Your task to perform on an android device: toggle location history Image 0: 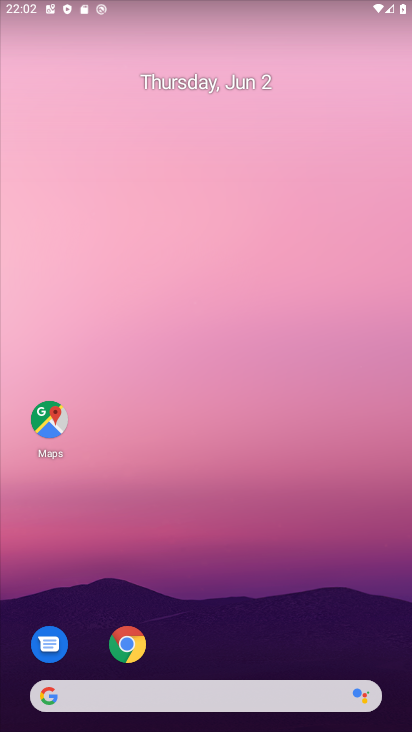
Step 0: drag from (247, 639) to (192, 150)
Your task to perform on an android device: toggle location history Image 1: 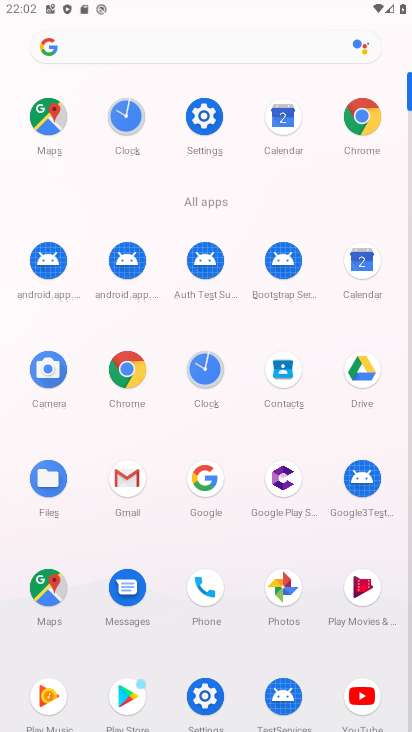
Step 1: click (208, 156)
Your task to perform on an android device: toggle location history Image 2: 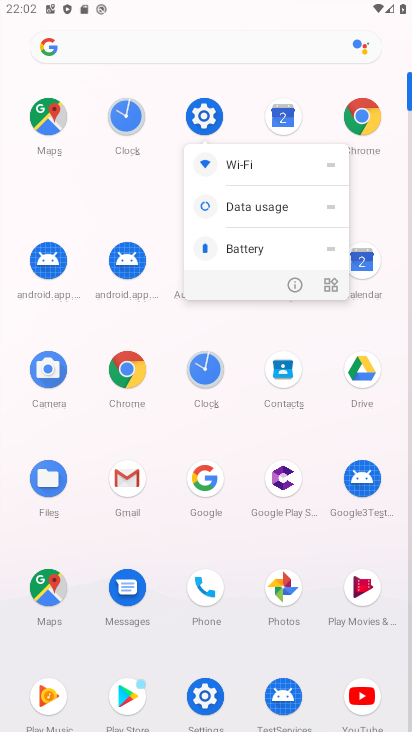
Step 2: click (203, 137)
Your task to perform on an android device: toggle location history Image 3: 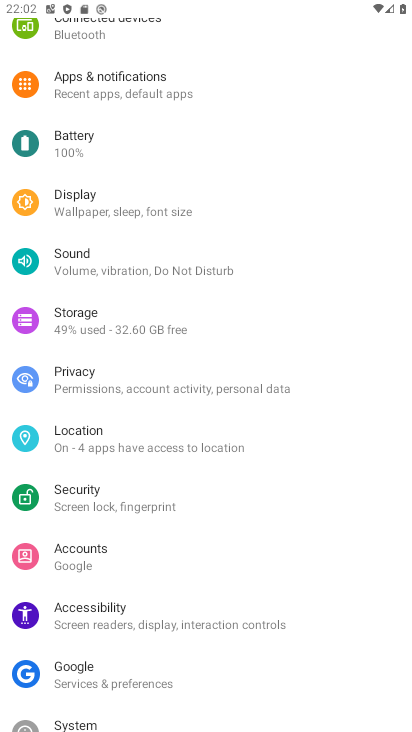
Step 3: click (102, 425)
Your task to perform on an android device: toggle location history Image 4: 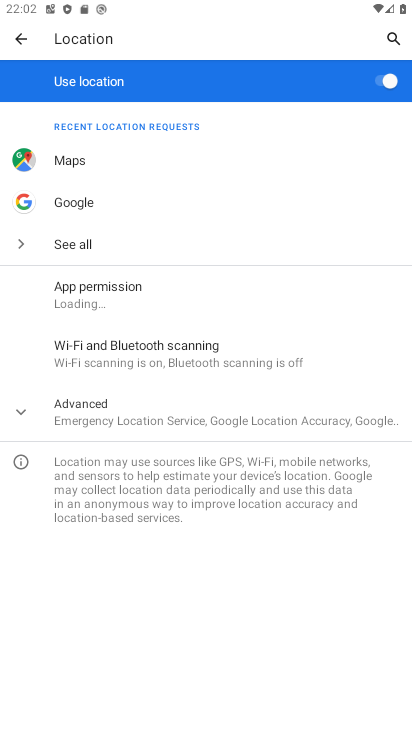
Step 4: click (115, 405)
Your task to perform on an android device: toggle location history Image 5: 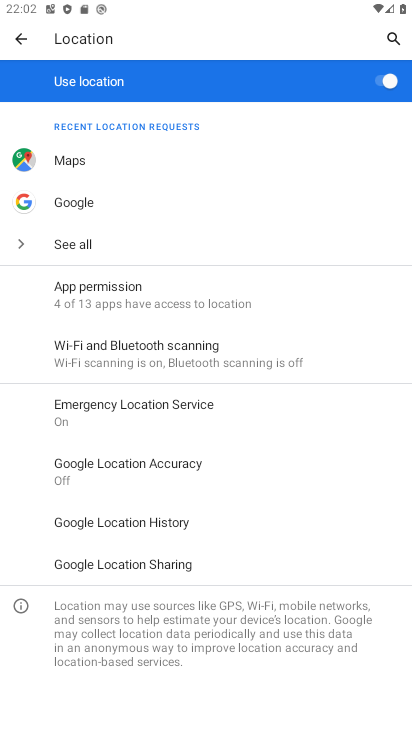
Step 5: click (116, 533)
Your task to perform on an android device: toggle location history Image 6: 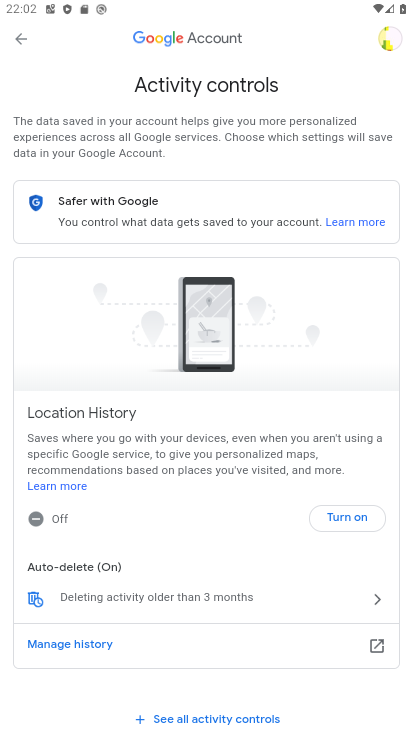
Step 6: click (337, 524)
Your task to perform on an android device: toggle location history Image 7: 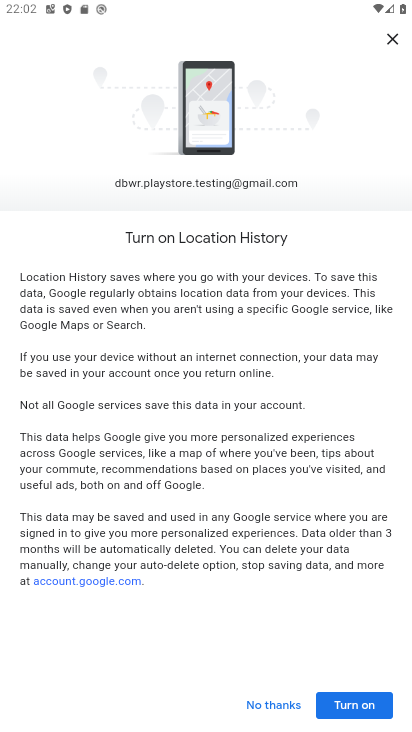
Step 7: click (354, 706)
Your task to perform on an android device: toggle location history Image 8: 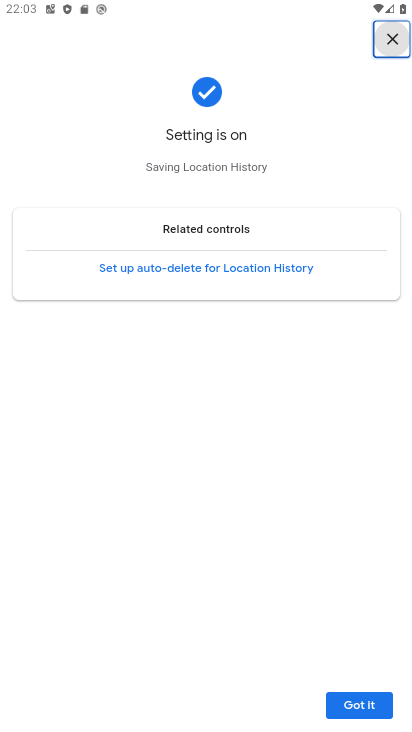
Step 8: click (341, 704)
Your task to perform on an android device: toggle location history Image 9: 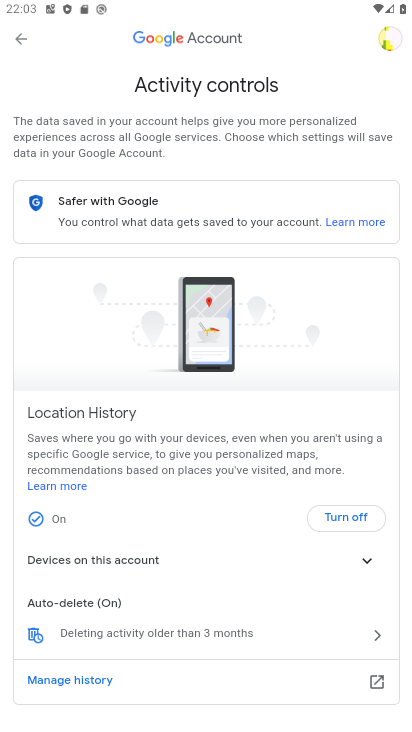
Step 9: task complete